Your task to perform on an android device: manage bookmarks in the chrome app Image 0: 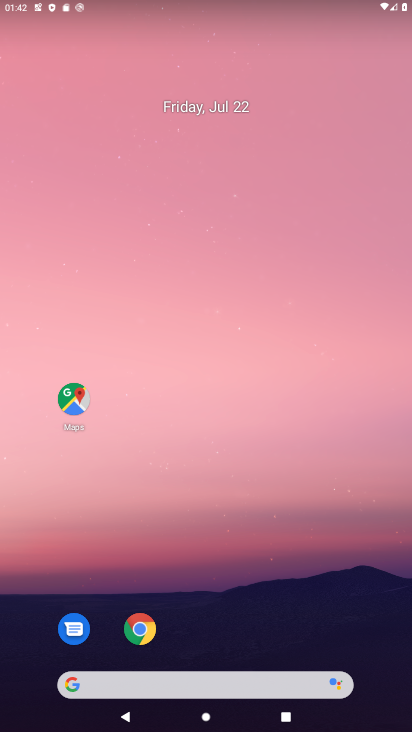
Step 0: click (144, 627)
Your task to perform on an android device: manage bookmarks in the chrome app Image 1: 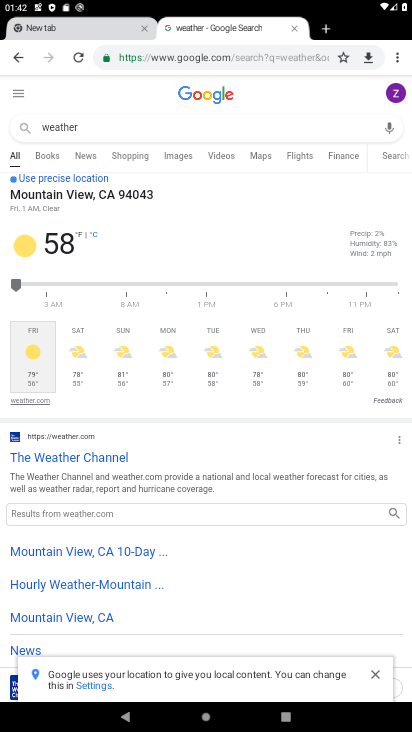
Step 1: click (397, 57)
Your task to perform on an android device: manage bookmarks in the chrome app Image 2: 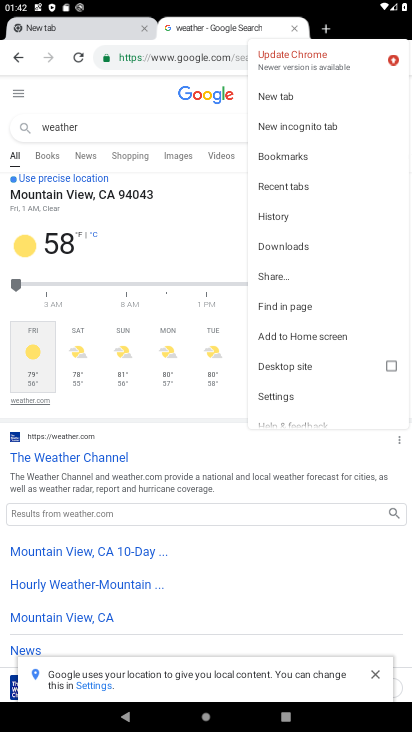
Step 2: click (293, 160)
Your task to perform on an android device: manage bookmarks in the chrome app Image 3: 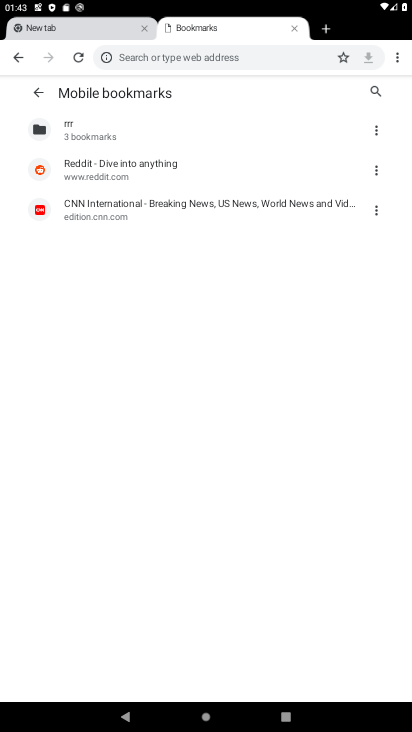
Step 3: click (380, 129)
Your task to perform on an android device: manage bookmarks in the chrome app Image 4: 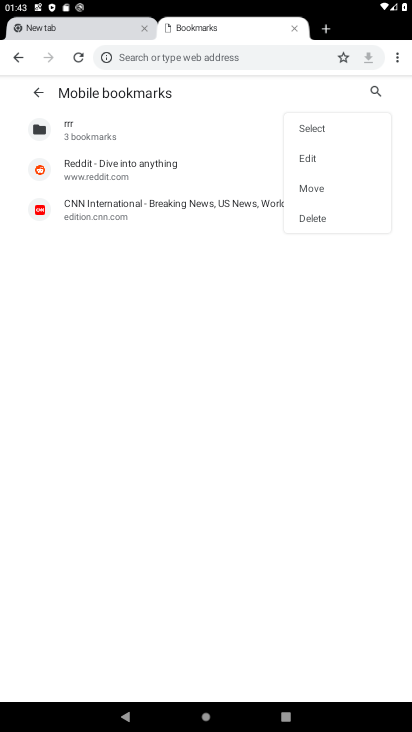
Step 4: click (335, 220)
Your task to perform on an android device: manage bookmarks in the chrome app Image 5: 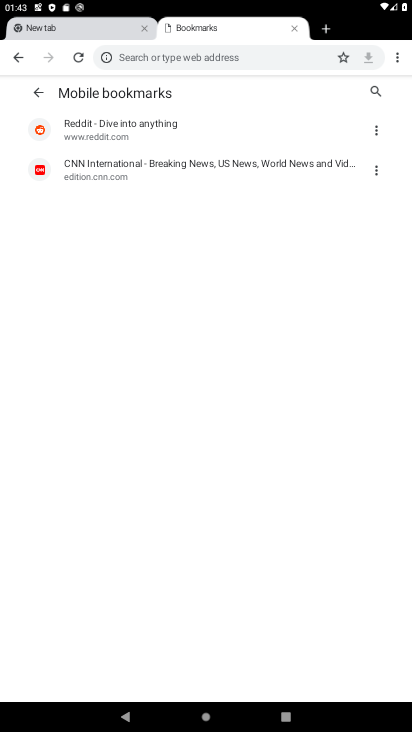
Step 5: task complete